Your task to perform on an android device: open sync settings in chrome Image 0: 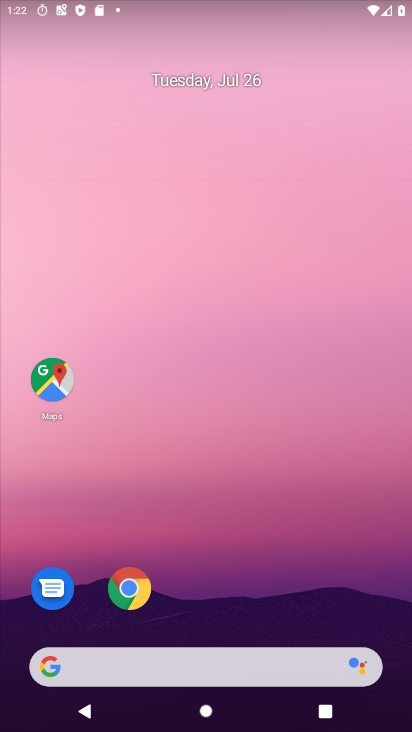
Step 0: click (133, 599)
Your task to perform on an android device: open sync settings in chrome Image 1: 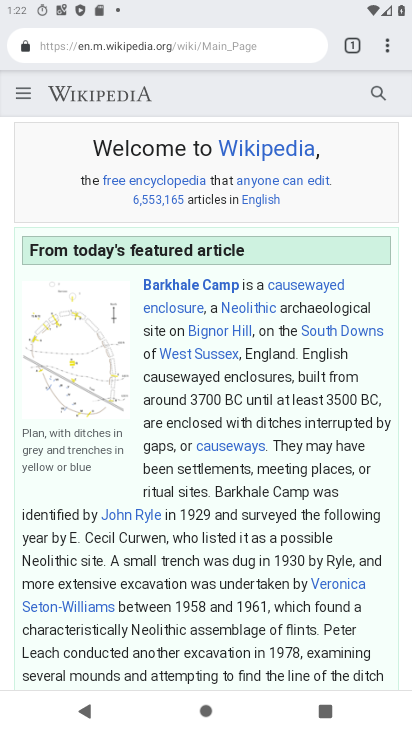
Step 1: click (393, 50)
Your task to perform on an android device: open sync settings in chrome Image 2: 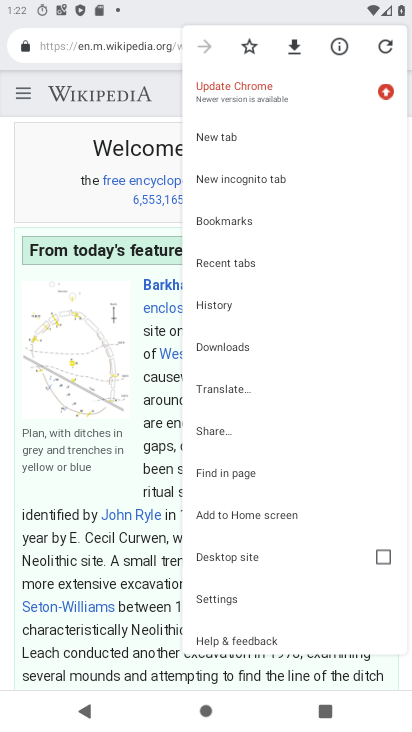
Step 2: click (248, 592)
Your task to perform on an android device: open sync settings in chrome Image 3: 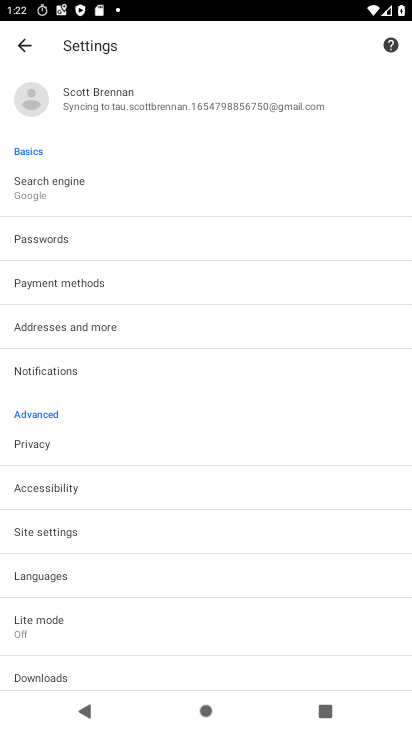
Step 3: click (125, 83)
Your task to perform on an android device: open sync settings in chrome Image 4: 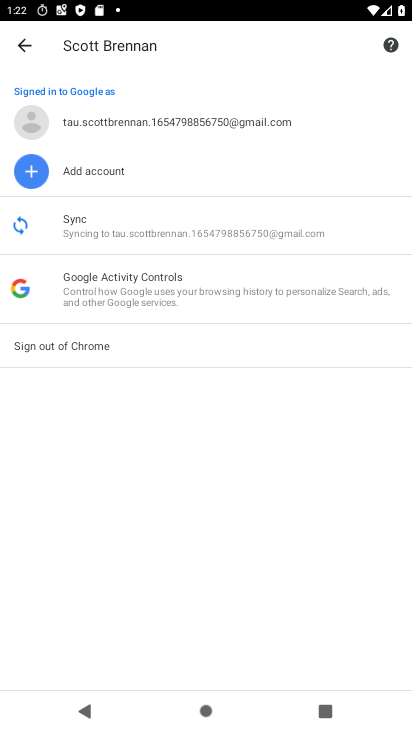
Step 4: click (90, 222)
Your task to perform on an android device: open sync settings in chrome Image 5: 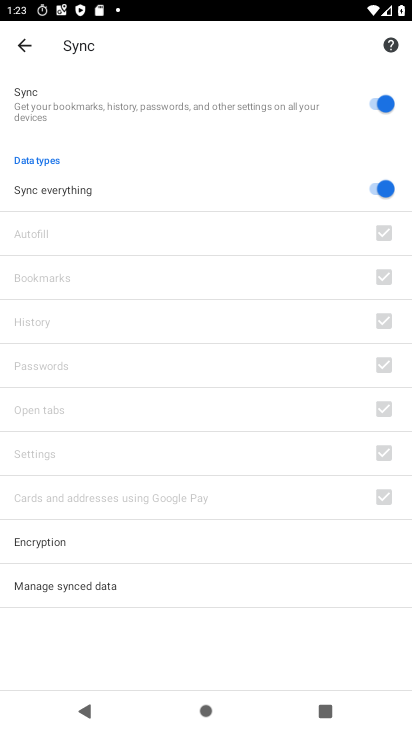
Step 5: task complete